Your task to perform on an android device: Do I have any events today? Image 0: 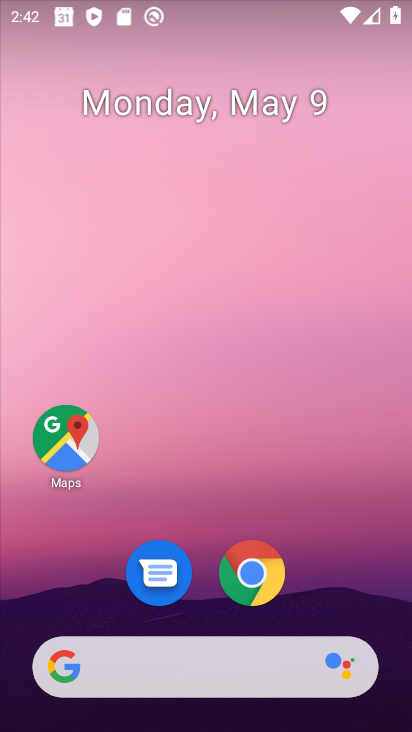
Step 0: click (292, 188)
Your task to perform on an android device: Do I have any events today? Image 1: 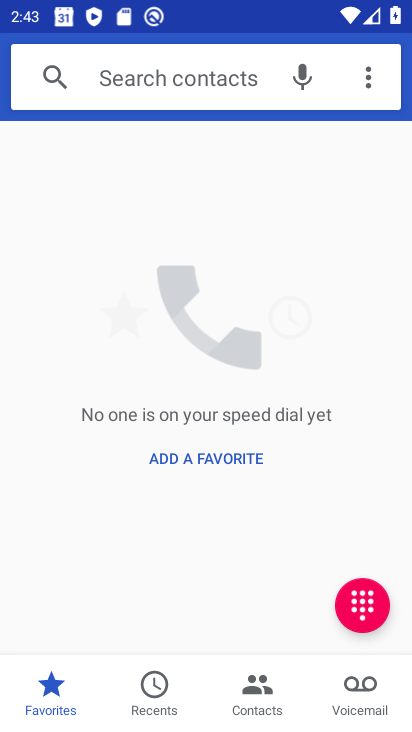
Step 1: press home button
Your task to perform on an android device: Do I have any events today? Image 2: 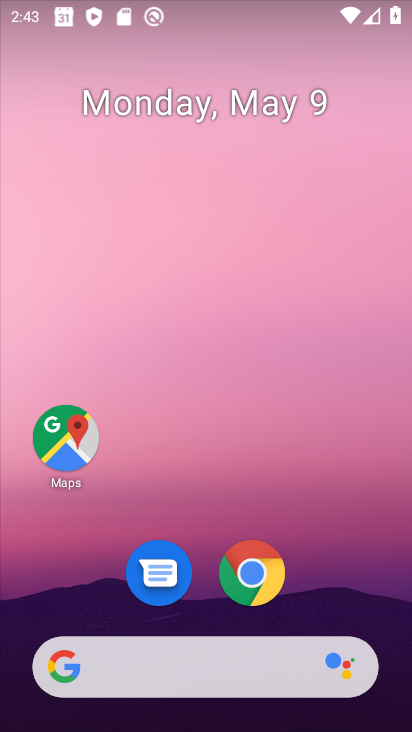
Step 2: drag from (191, 634) to (276, 91)
Your task to perform on an android device: Do I have any events today? Image 3: 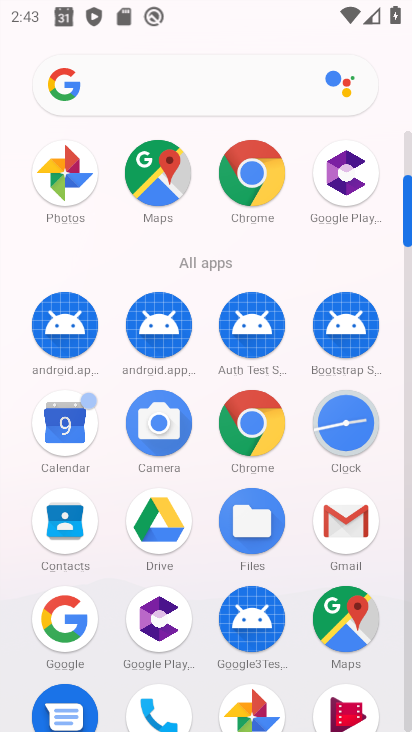
Step 3: click (77, 417)
Your task to perform on an android device: Do I have any events today? Image 4: 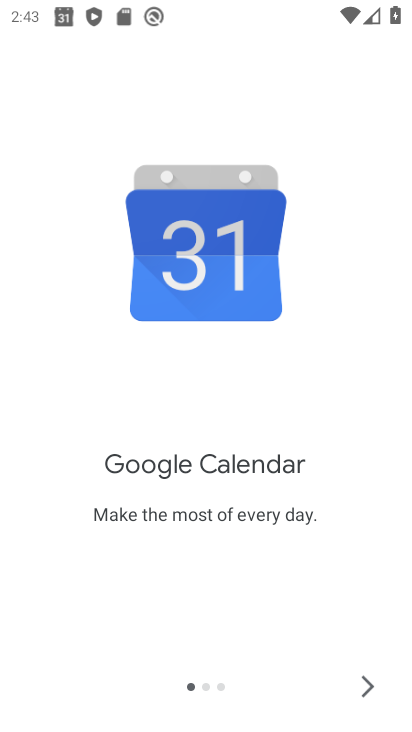
Step 4: click (368, 692)
Your task to perform on an android device: Do I have any events today? Image 5: 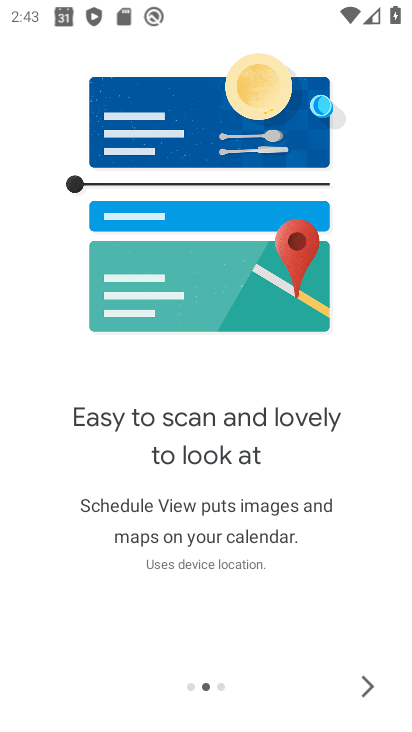
Step 5: click (366, 686)
Your task to perform on an android device: Do I have any events today? Image 6: 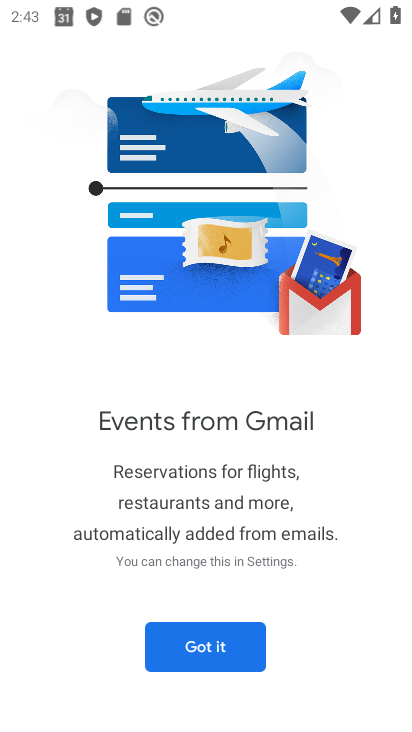
Step 6: click (235, 648)
Your task to perform on an android device: Do I have any events today? Image 7: 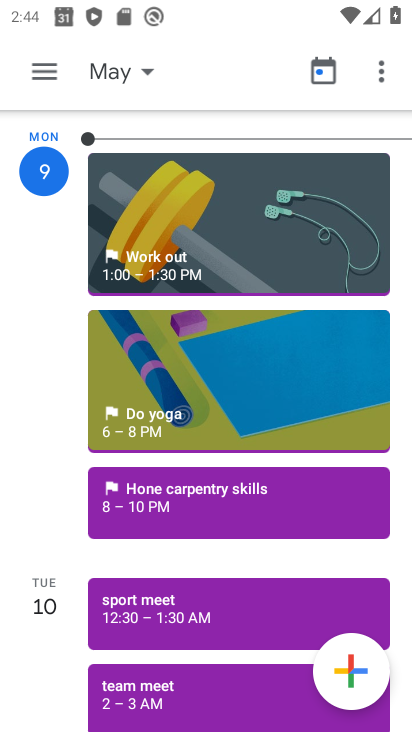
Step 7: task complete